Your task to perform on an android device: turn on showing notifications on the lock screen Image 0: 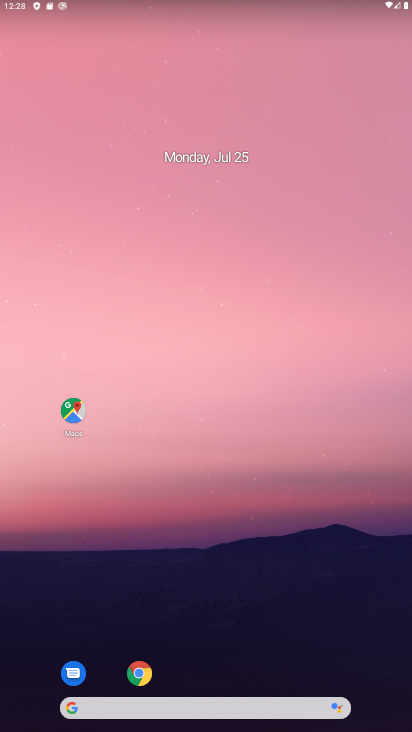
Step 0: drag from (223, 731) to (375, 19)
Your task to perform on an android device: turn on showing notifications on the lock screen Image 1: 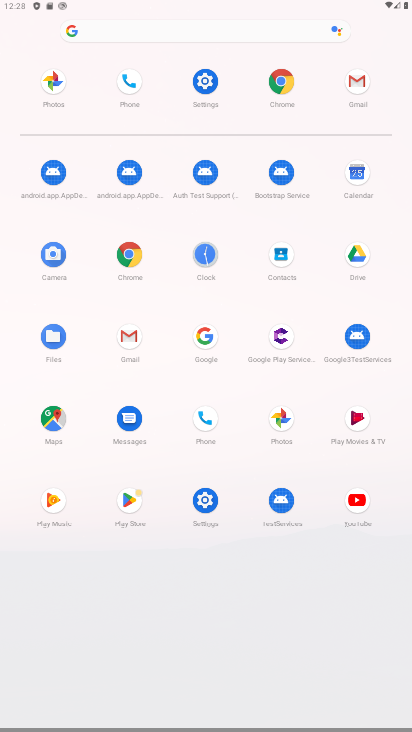
Step 1: click (197, 91)
Your task to perform on an android device: turn on showing notifications on the lock screen Image 2: 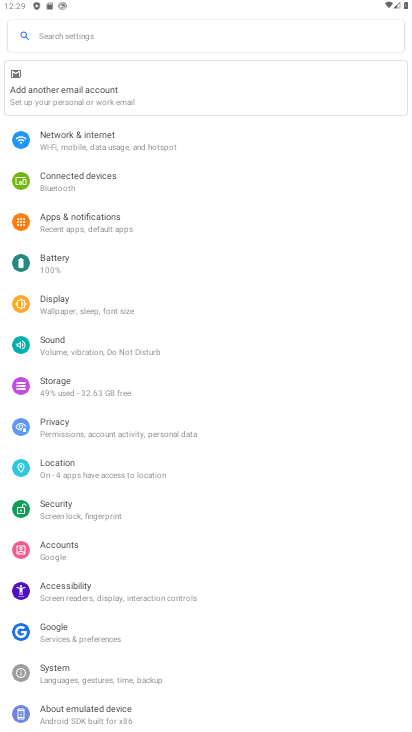
Step 2: click (139, 228)
Your task to perform on an android device: turn on showing notifications on the lock screen Image 3: 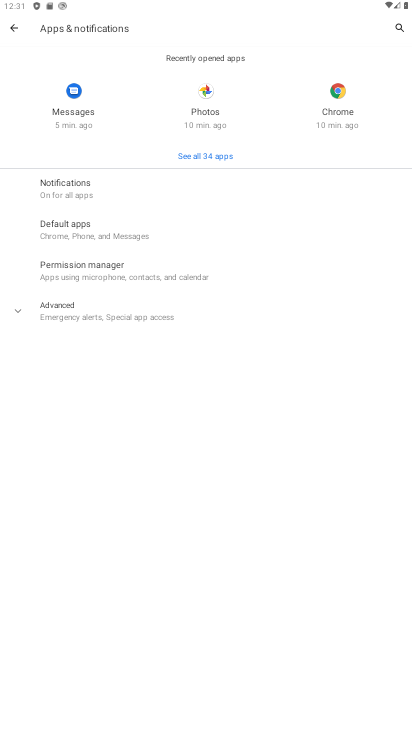
Step 3: click (102, 192)
Your task to perform on an android device: turn on showing notifications on the lock screen Image 4: 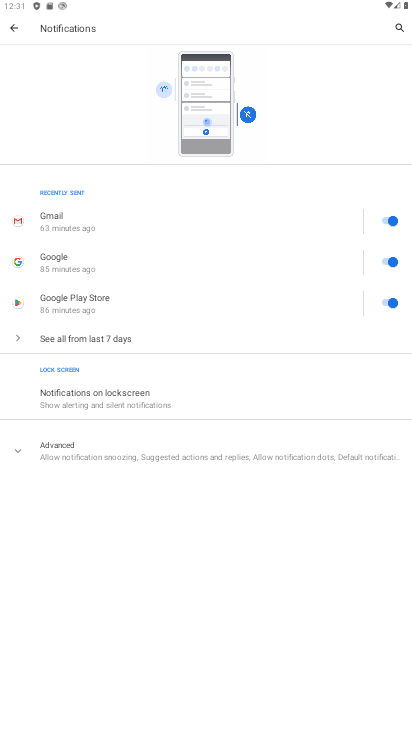
Step 4: click (159, 394)
Your task to perform on an android device: turn on showing notifications on the lock screen Image 5: 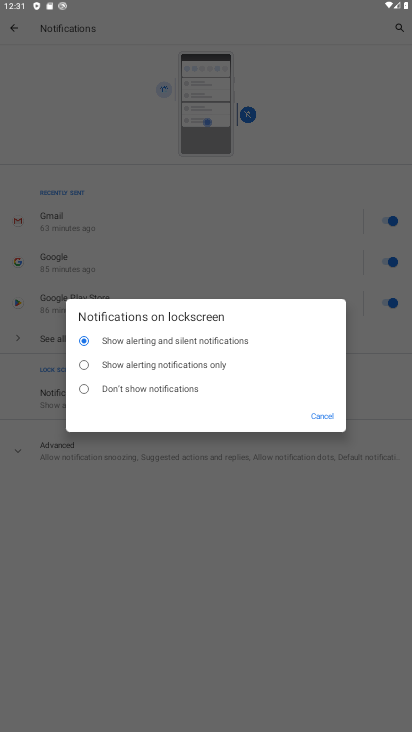
Step 5: task complete